Your task to perform on an android device: What's on my calendar tomorrow? Image 0: 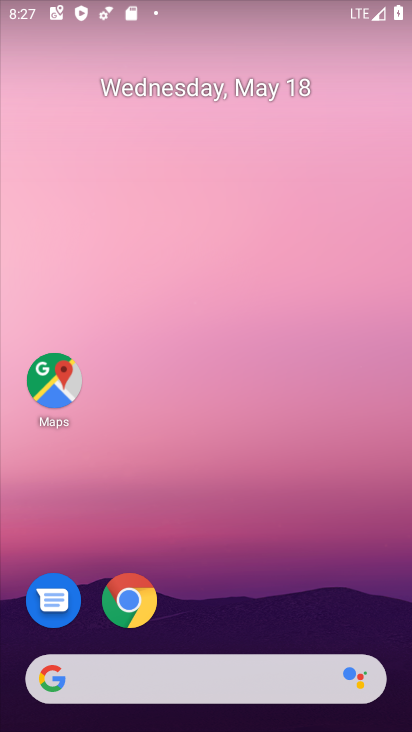
Step 0: drag from (238, 604) to (298, 137)
Your task to perform on an android device: What's on my calendar tomorrow? Image 1: 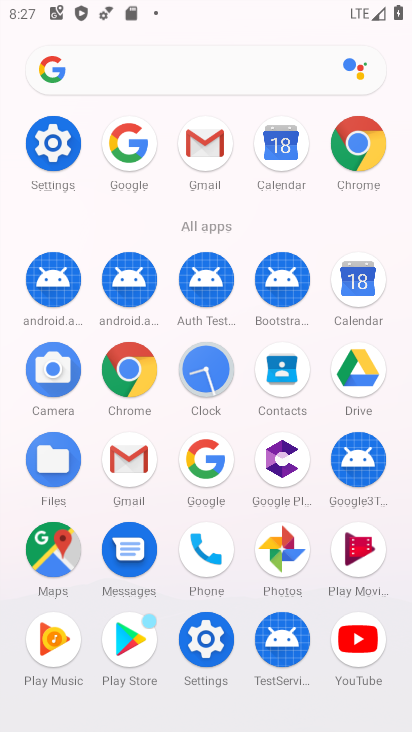
Step 1: click (353, 307)
Your task to perform on an android device: What's on my calendar tomorrow? Image 2: 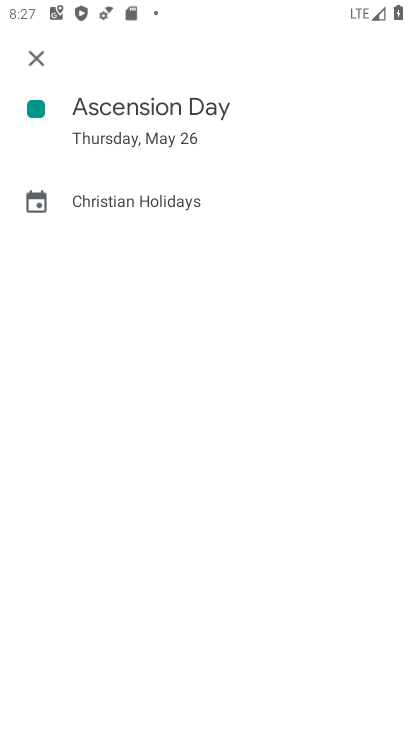
Step 2: click (55, 65)
Your task to perform on an android device: What's on my calendar tomorrow? Image 3: 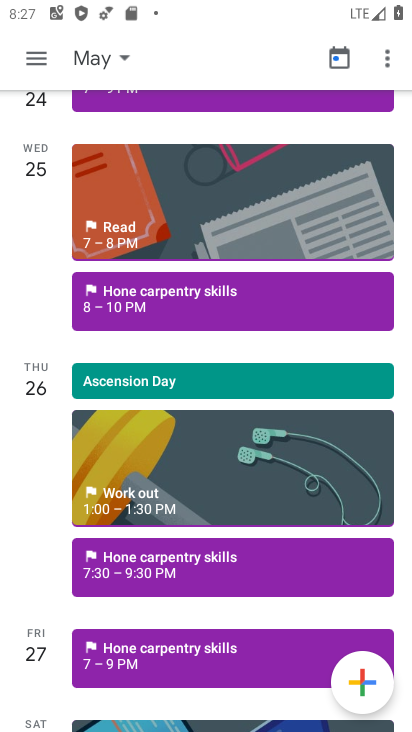
Step 3: drag from (316, 230) to (202, 731)
Your task to perform on an android device: What's on my calendar tomorrow? Image 4: 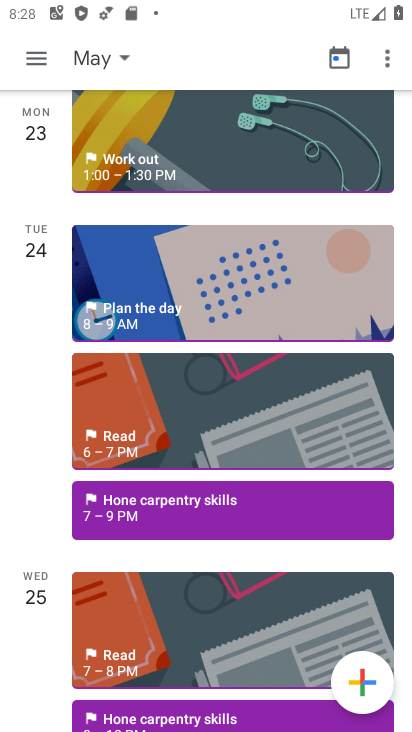
Step 4: drag from (203, 231) to (134, 702)
Your task to perform on an android device: What's on my calendar tomorrow? Image 5: 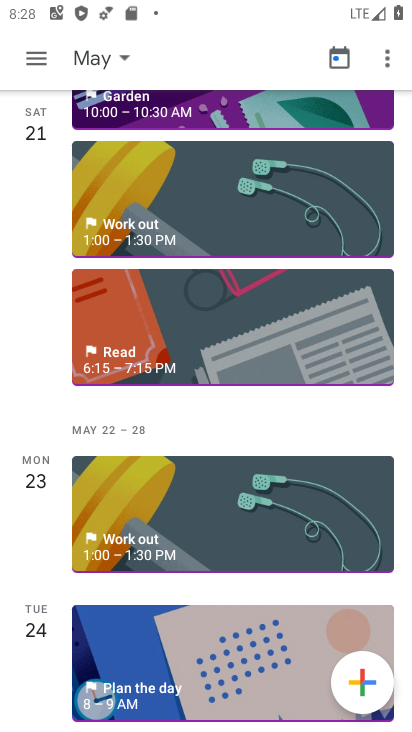
Step 5: drag from (196, 214) to (147, 679)
Your task to perform on an android device: What's on my calendar tomorrow? Image 6: 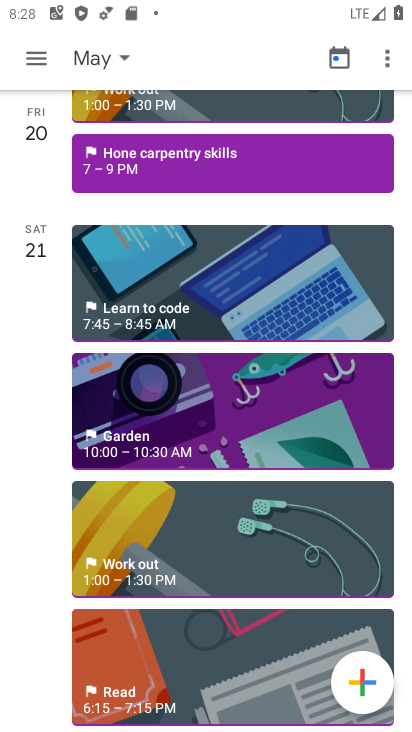
Step 6: click (161, 156)
Your task to perform on an android device: What's on my calendar tomorrow? Image 7: 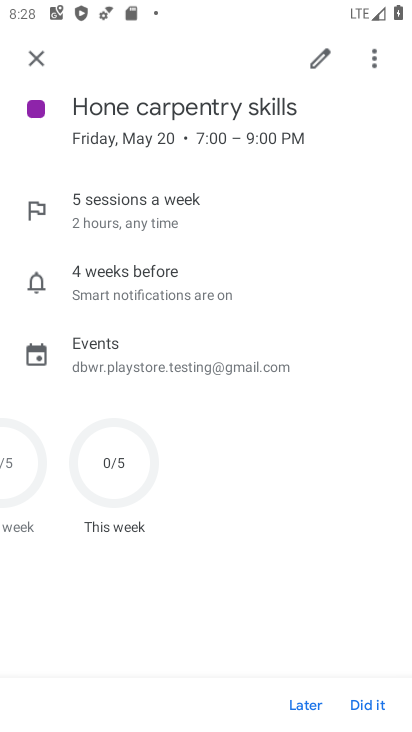
Step 7: task complete